Your task to perform on an android device: show emergency info Image 0: 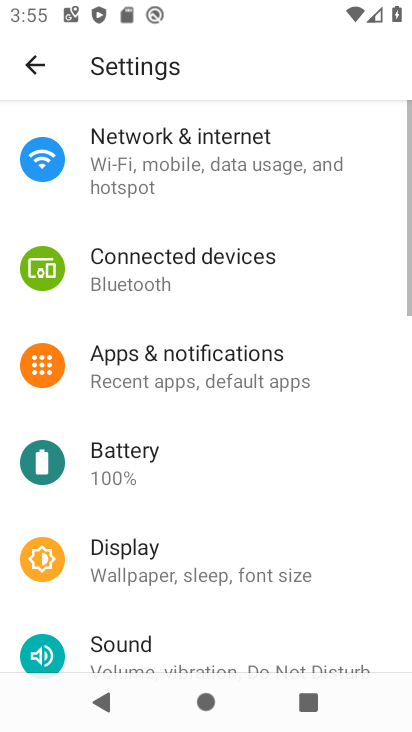
Step 0: drag from (182, 654) to (165, 229)
Your task to perform on an android device: show emergency info Image 1: 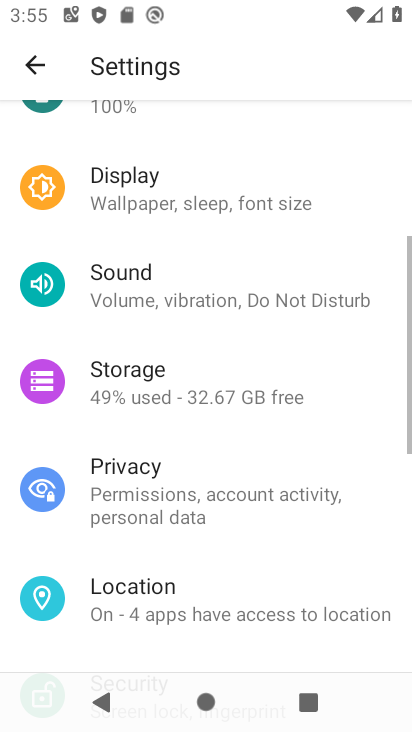
Step 1: drag from (163, 628) to (158, 270)
Your task to perform on an android device: show emergency info Image 2: 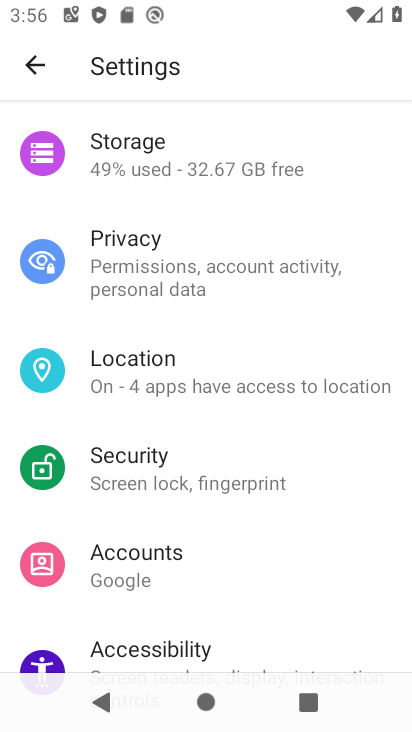
Step 2: drag from (130, 631) to (128, 306)
Your task to perform on an android device: show emergency info Image 3: 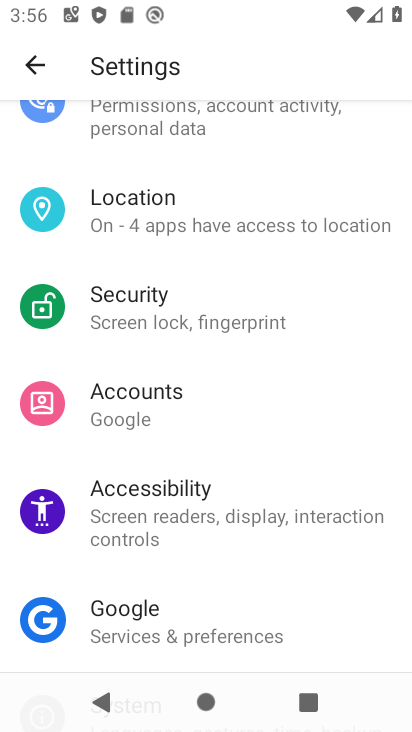
Step 3: drag from (155, 635) to (117, 195)
Your task to perform on an android device: show emergency info Image 4: 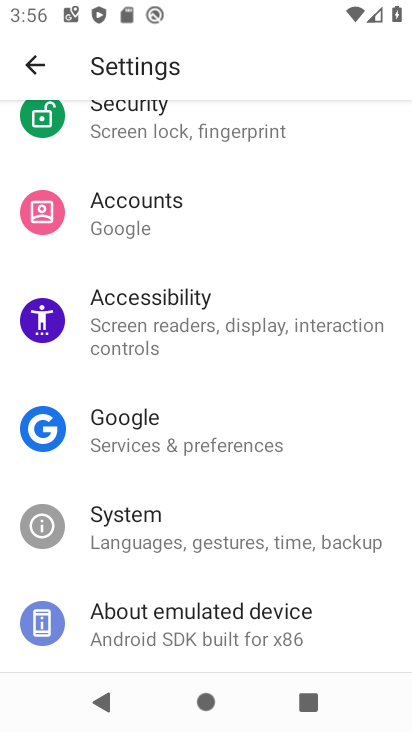
Step 4: click (181, 616)
Your task to perform on an android device: show emergency info Image 5: 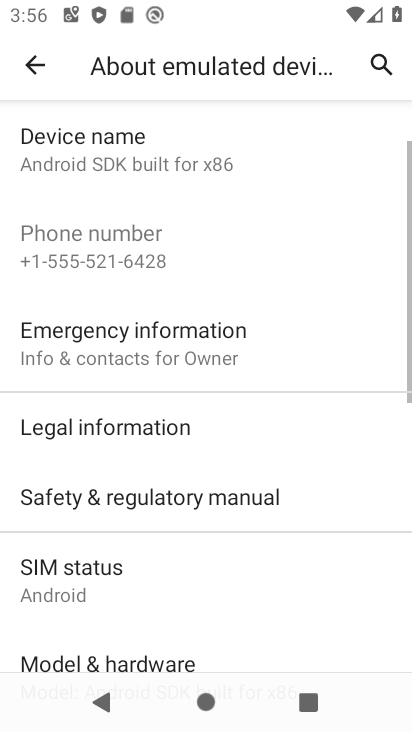
Step 5: drag from (151, 662) to (136, 335)
Your task to perform on an android device: show emergency info Image 6: 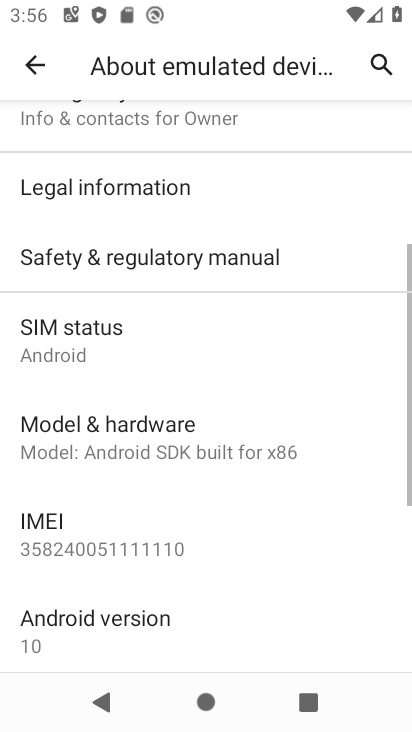
Step 6: drag from (116, 600) to (89, 267)
Your task to perform on an android device: show emergency info Image 7: 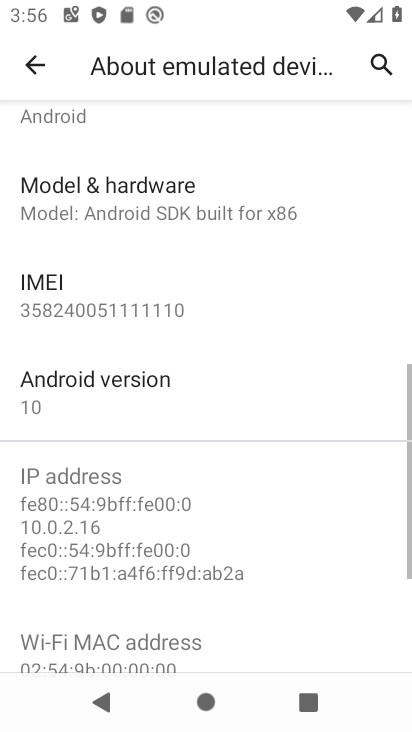
Step 7: drag from (134, 596) to (139, 207)
Your task to perform on an android device: show emergency info Image 8: 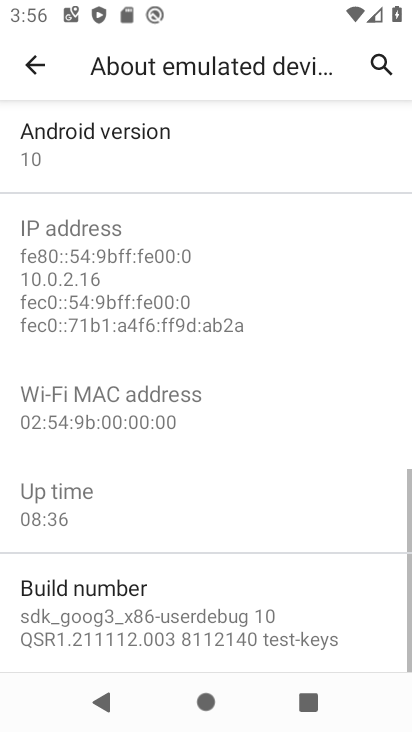
Step 8: drag from (127, 215) to (117, 634)
Your task to perform on an android device: show emergency info Image 9: 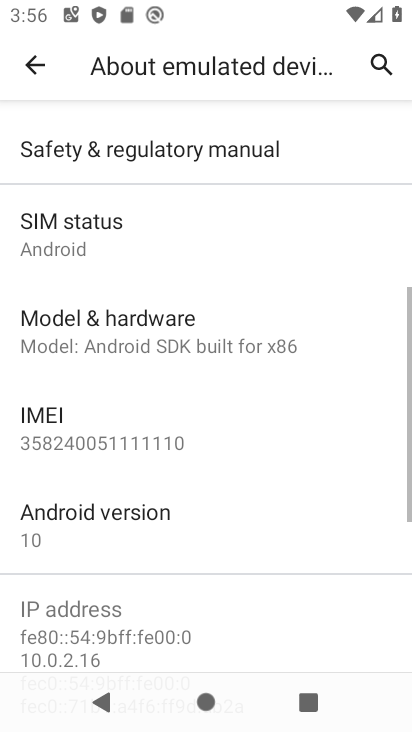
Step 9: drag from (118, 240) to (126, 631)
Your task to perform on an android device: show emergency info Image 10: 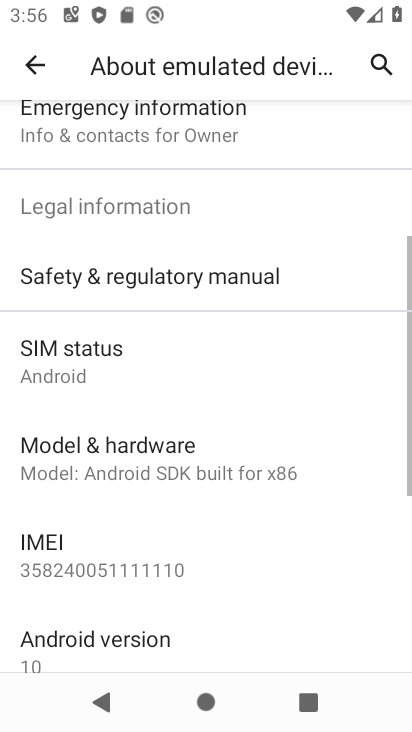
Step 10: click (56, 135)
Your task to perform on an android device: show emergency info Image 11: 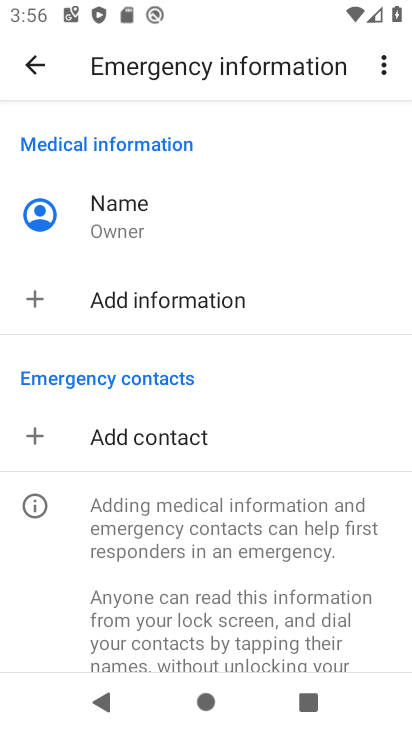
Step 11: task complete